Your task to perform on an android device: Go to location settings Image 0: 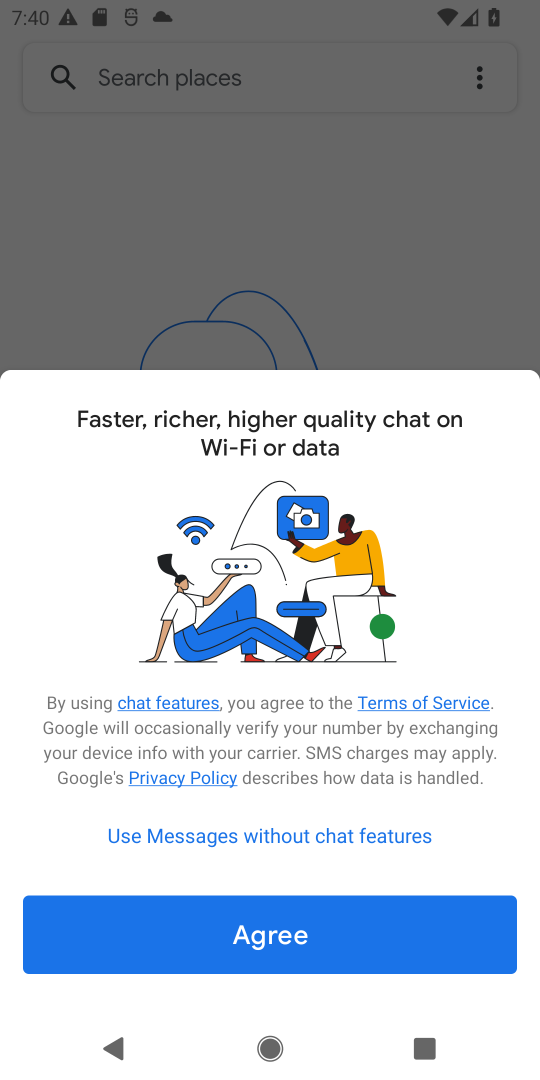
Step 0: press home button
Your task to perform on an android device: Go to location settings Image 1: 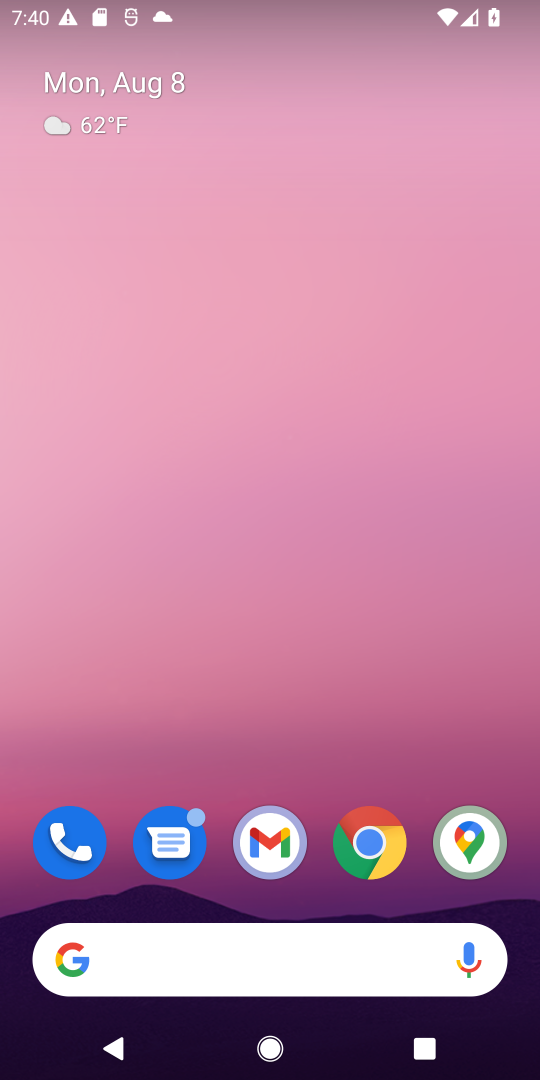
Step 1: drag from (259, 692) to (272, 1)
Your task to perform on an android device: Go to location settings Image 2: 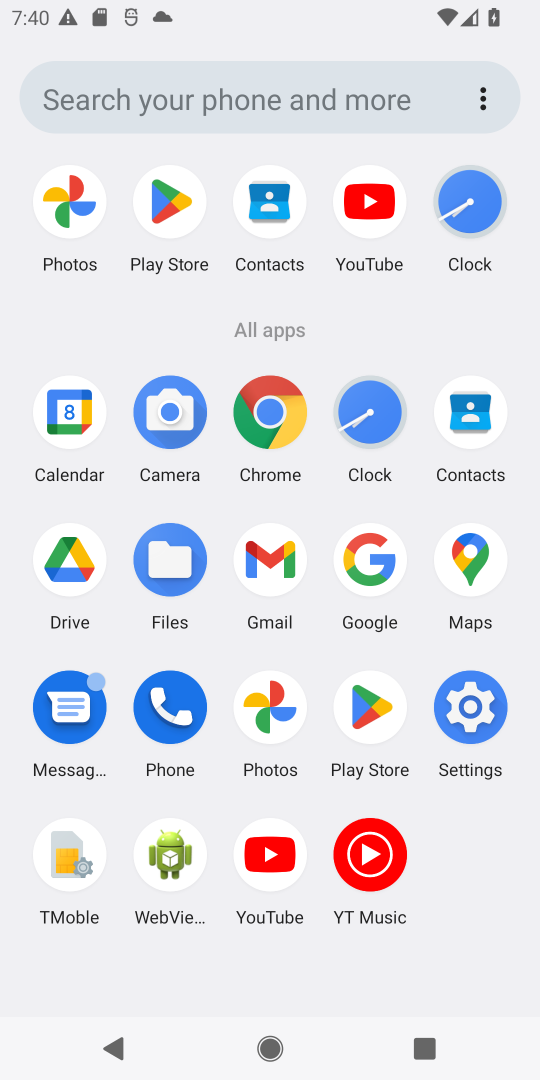
Step 2: click (473, 701)
Your task to perform on an android device: Go to location settings Image 3: 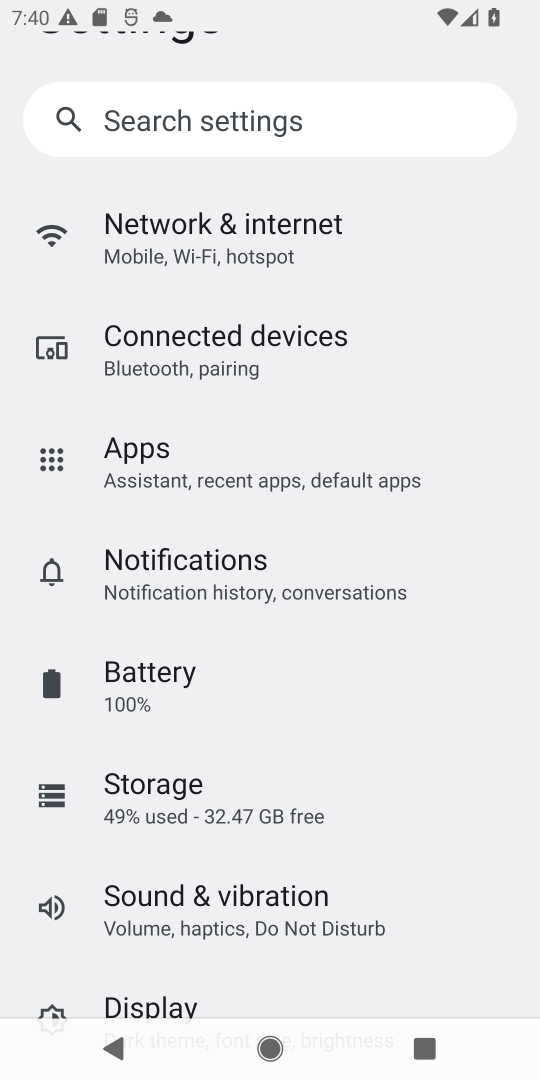
Step 3: drag from (296, 694) to (267, 46)
Your task to perform on an android device: Go to location settings Image 4: 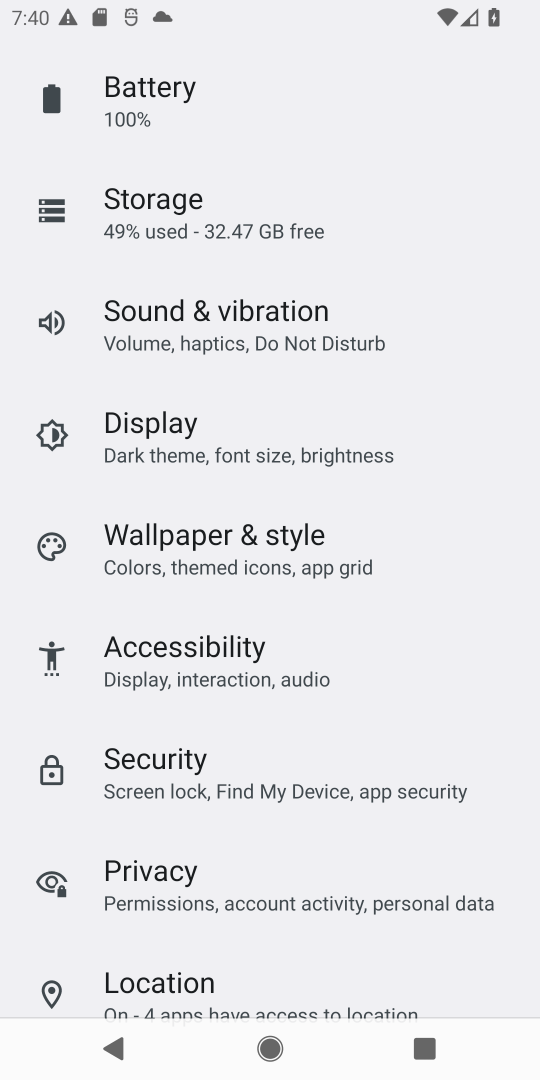
Step 4: drag from (303, 721) to (318, 434)
Your task to perform on an android device: Go to location settings Image 5: 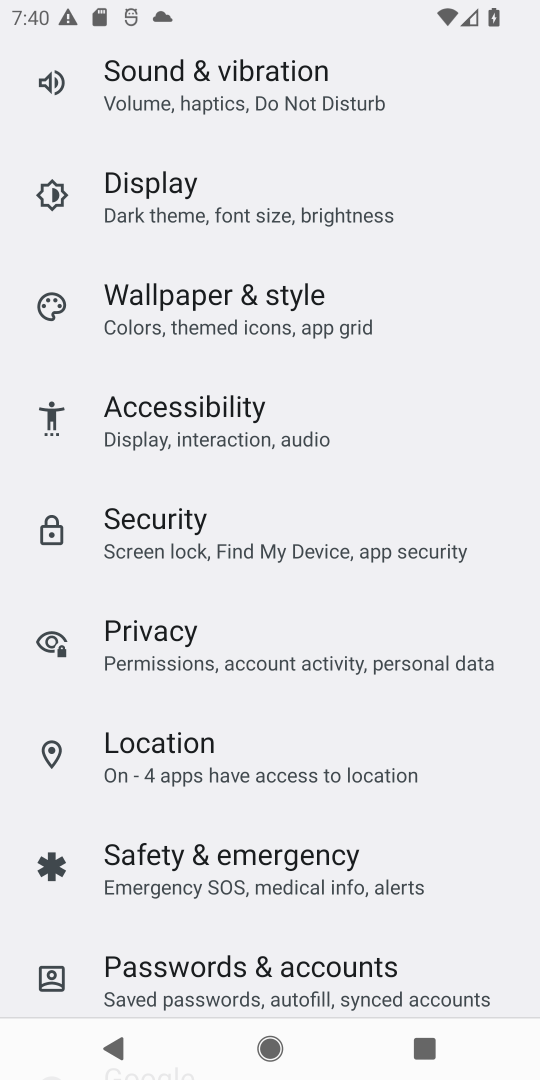
Step 5: click (263, 767)
Your task to perform on an android device: Go to location settings Image 6: 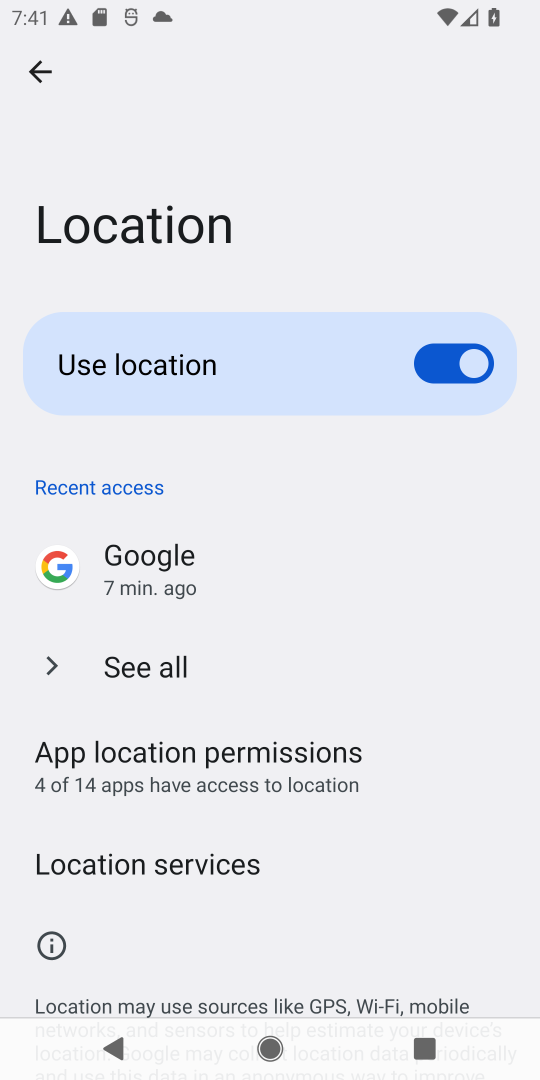
Step 6: task complete